Your task to perform on an android device: Go to eBay Image 0: 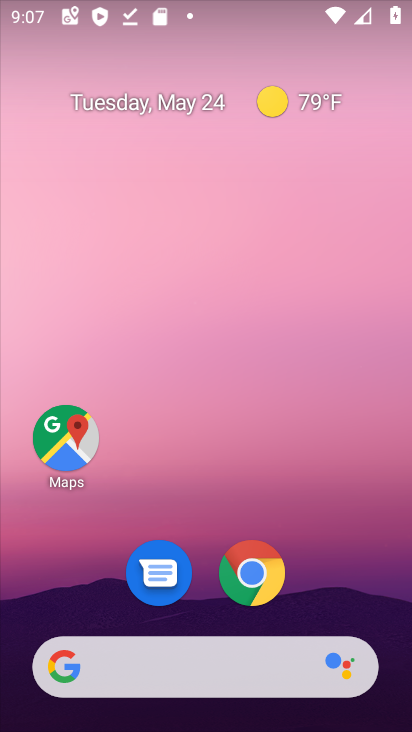
Step 0: drag from (261, 666) to (145, 12)
Your task to perform on an android device: Go to eBay Image 1: 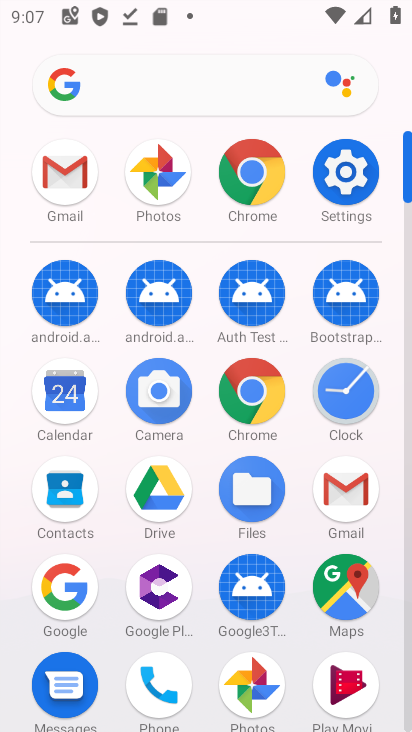
Step 1: click (267, 163)
Your task to perform on an android device: Go to eBay Image 2: 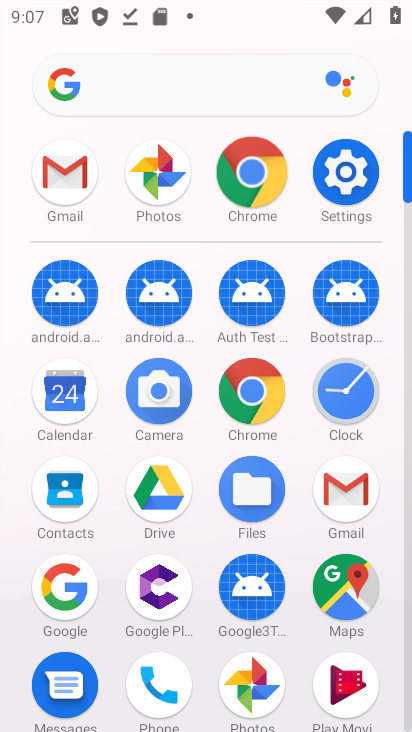
Step 2: click (288, 178)
Your task to perform on an android device: Go to eBay Image 3: 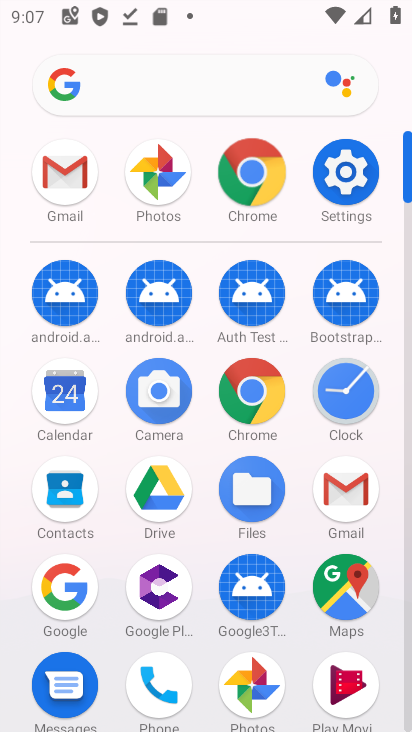
Step 3: click (290, 176)
Your task to perform on an android device: Go to eBay Image 4: 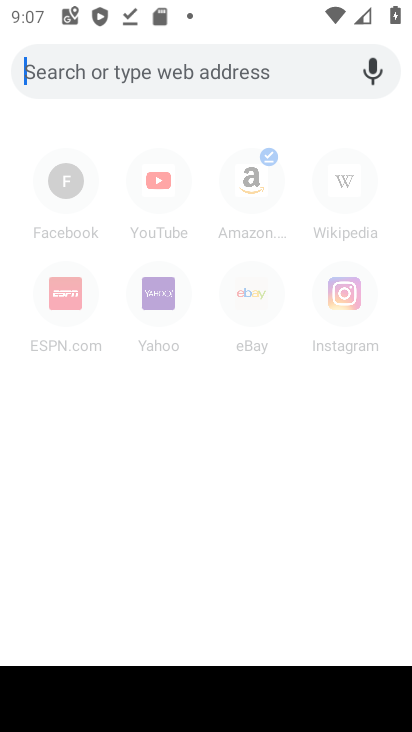
Step 4: click (253, 287)
Your task to perform on an android device: Go to eBay Image 5: 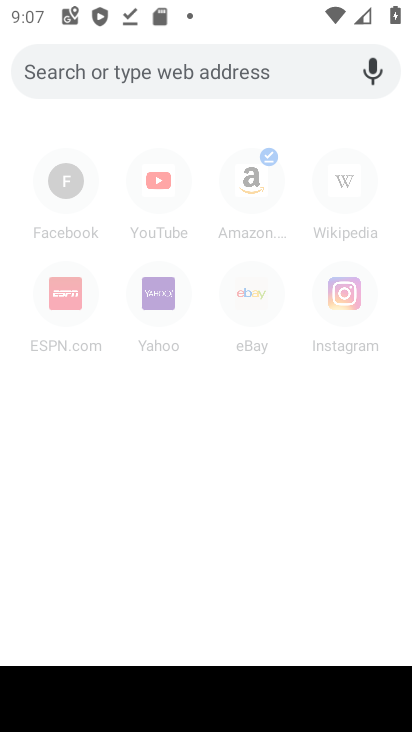
Step 5: click (262, 294)
Your task to perform on an android device: Go to eBay Image 6: 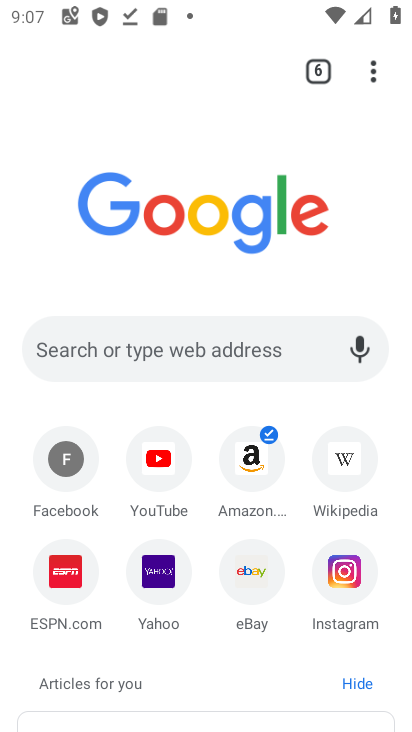
Step 6: click (266, 563)
Your task to perform on an android device: Go to eBay Image 7: 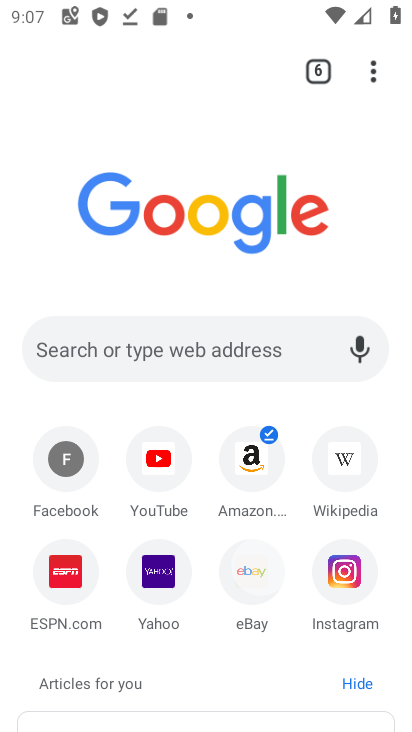
Step 7: click (266, 567)
Your task to perform on an android device: Go to eBay Image 8: 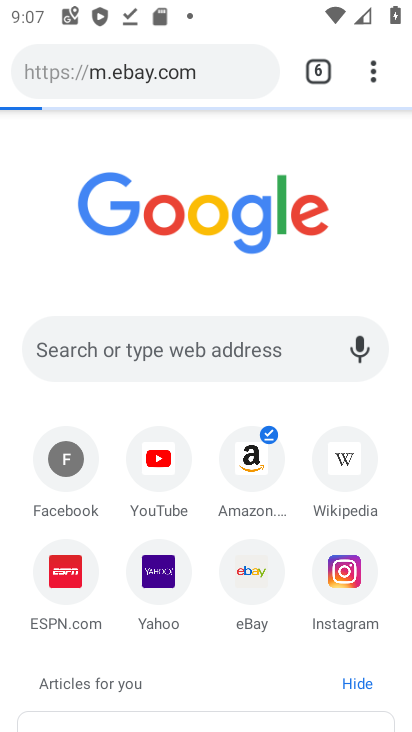
Step 8: click (264, 568)
Your task to perform on an android device: Go to eBay Image 9: 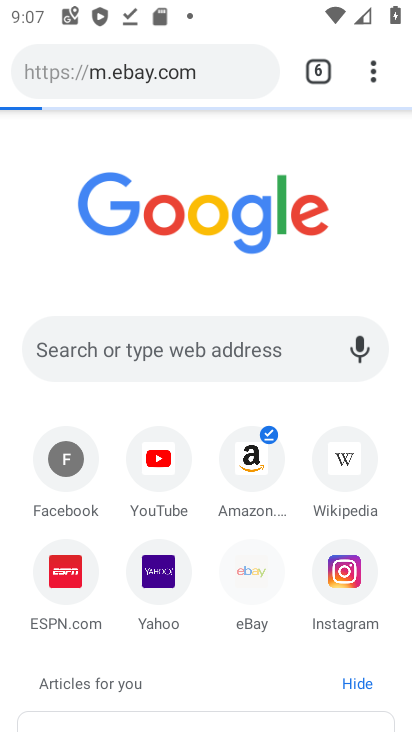
Step 9: click (264, 574)
Your task to perform on an android device: Go to eBay Image 10: 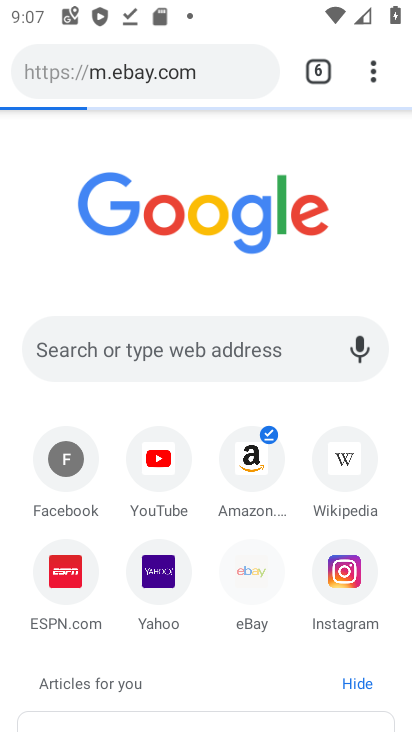
Step 10: click (262, 578)
Your task to perform on an android device: Go to eBay Image 11: 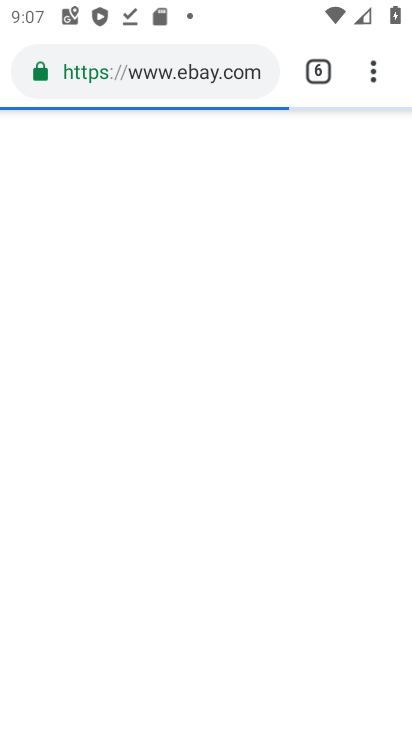
Step 11: click (258, 574)
Your task to perform on an android device: Go to eBay Image 12: 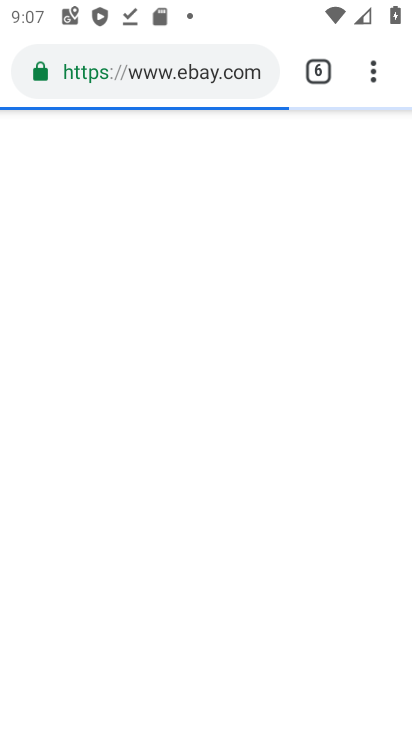
Step 12: click (256, 568)
Your task to perform on an android device: Go to eBay Image 13: 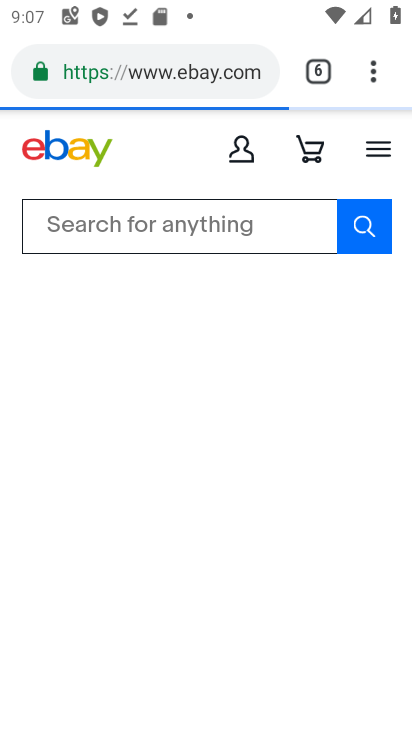
Step 13: click (256, 568)
Your task to perform on an android device: Go to eBay Image 14: 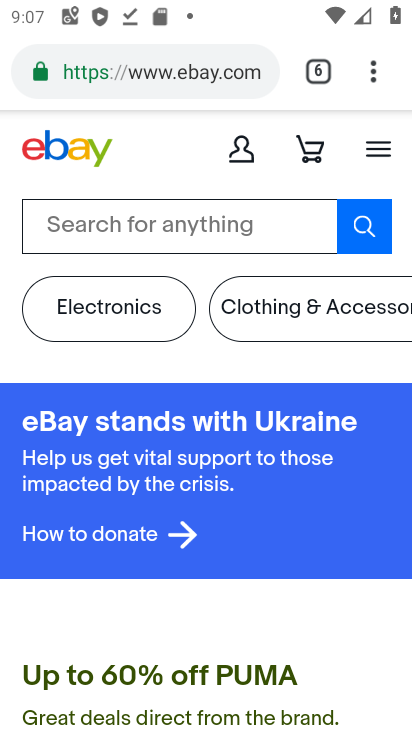
Step 14: task complete